Your task to perform on an android device: When is my next appointment? Image 0: 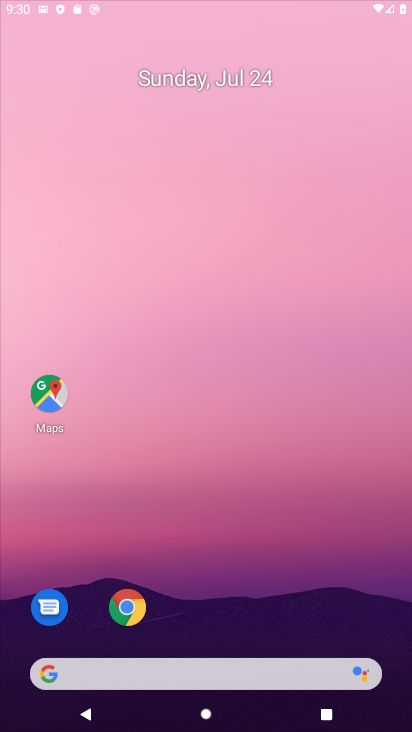
Step 0: press home button
Your task to perform on an android device: When is my next appointment? Image 1: 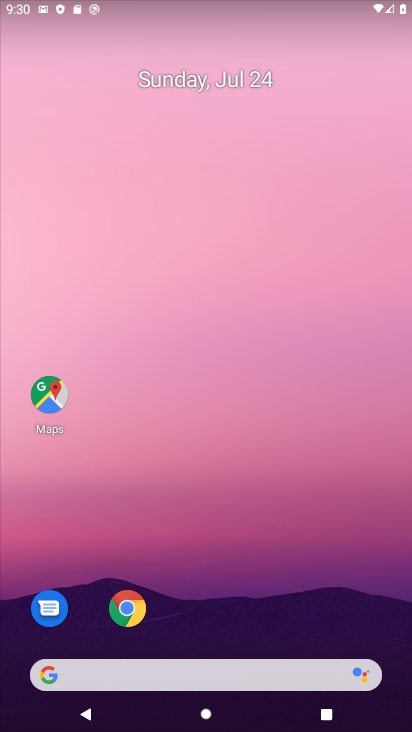
Step 1: drag from (227, 636) to (180, 35)
Your task to perform on an android device: When is my next appointment? Image 2: 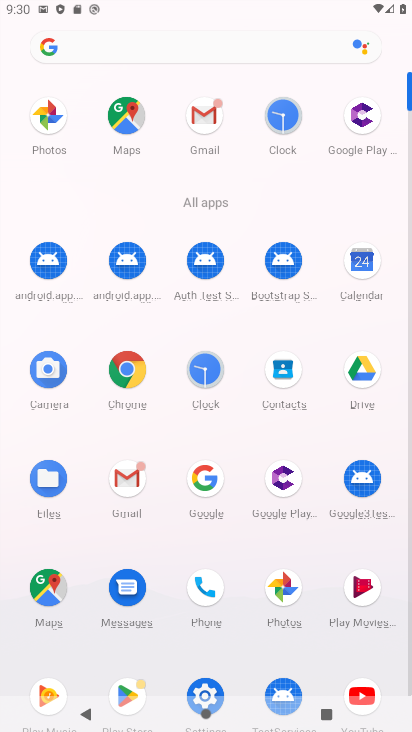
Step 2: click (362, 255)
Your task to perform on an android device: When is my next appointment? Image 3: 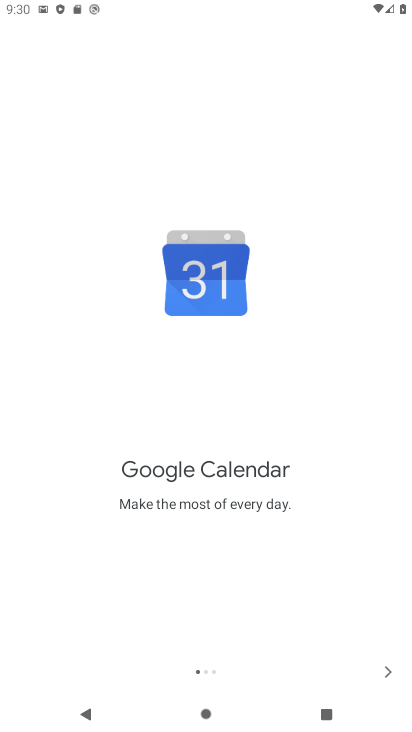
Step 3: click (384, 666)
Your task to perform on an android device: When is my next appointment? Image 4: 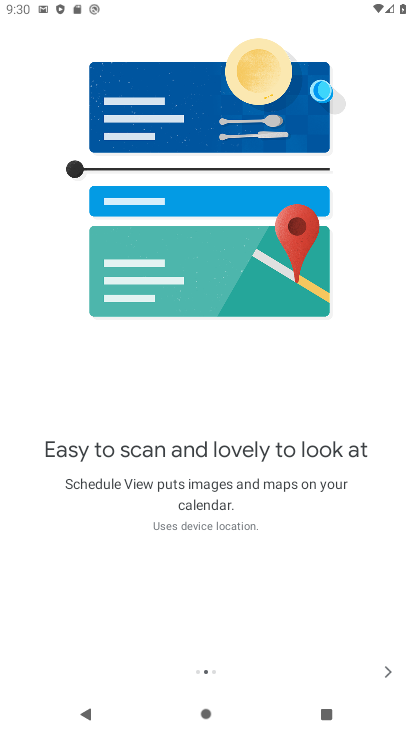
Step 4: click (378, 669)
Your task to perform on an android device: When is my next appointment? Image 5: 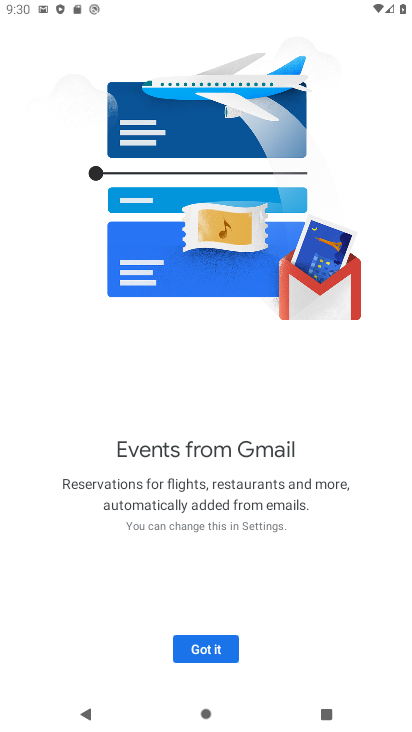
Step 5: click (378, 669)
Your task to perform on an android device: When is my next appointment? Image 6: 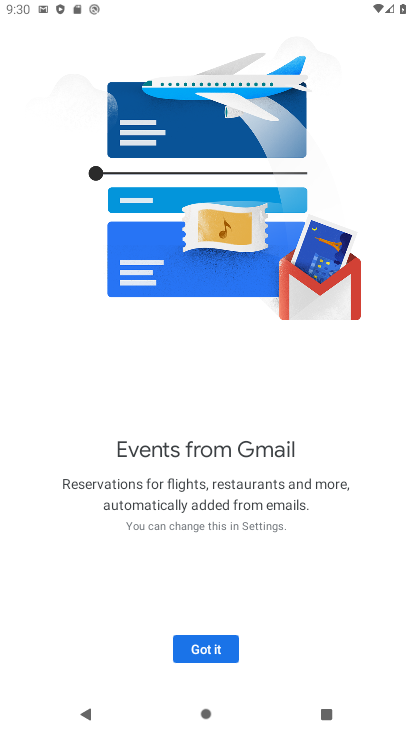
Step 6: click (210, 648)
Your task to perform on an android device: When is my next appointment? Image 7: 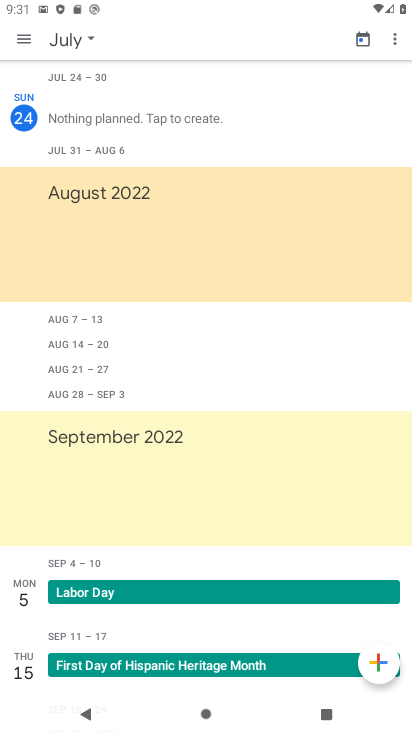
Step 7: task complete